Your task to perform on an android device: Open the Play Movies app and select the watchlist tab. Image 0: 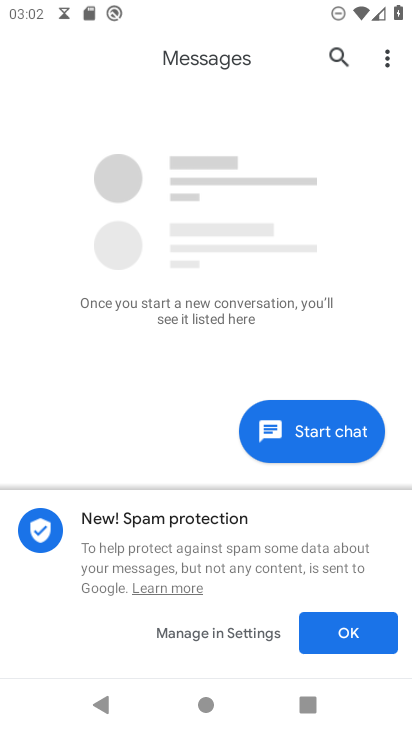
Step 0: press home button
Your task to perform on an android device: Open the Play Movies app and select the watchlist tab. Image 1: 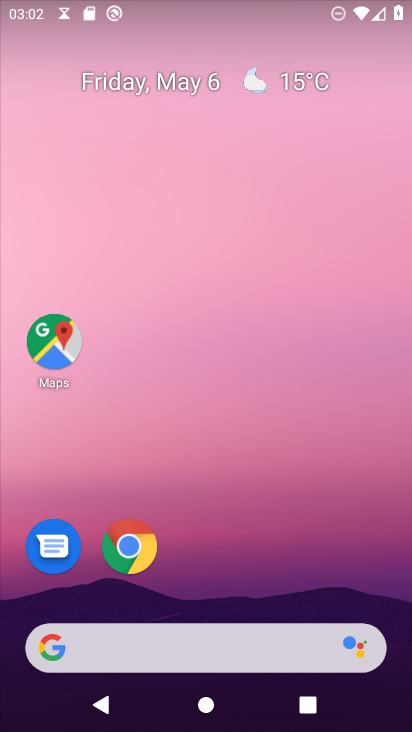
Step 1: drag from (285, 516) to (255, 21)
Your task to perform on an android device: Open the Play Movies app and select the watchlist tab. Image 2: 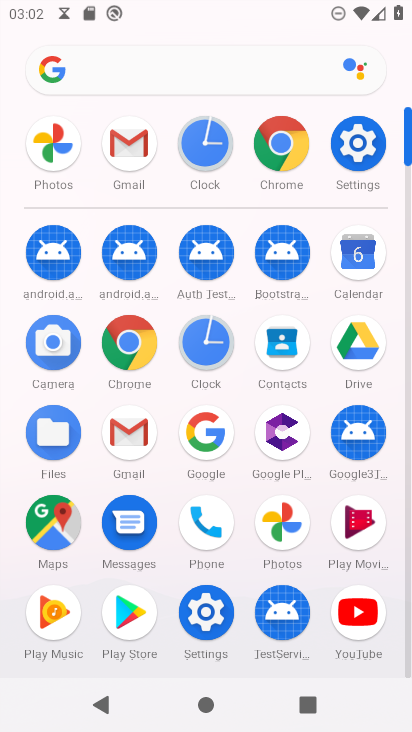
Step 2: click (354, 537)
Your task to perform on an android device: Open the Play Movies app and select the watchlist tab. Image 3: 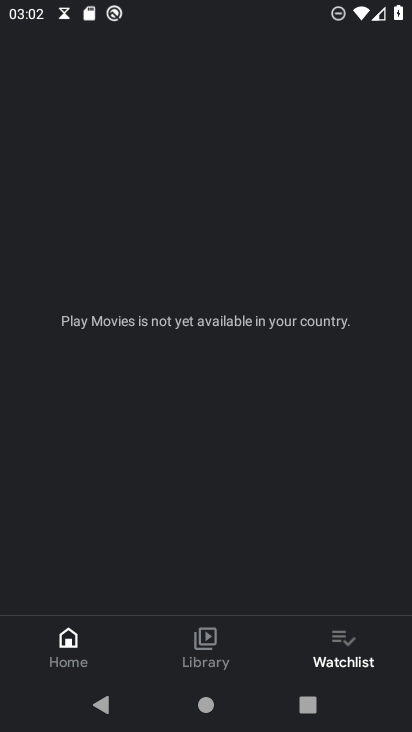
Step 3: task complete